Your task to perform on an android device: Open calendar and show me the fourth week of next month Image 0: 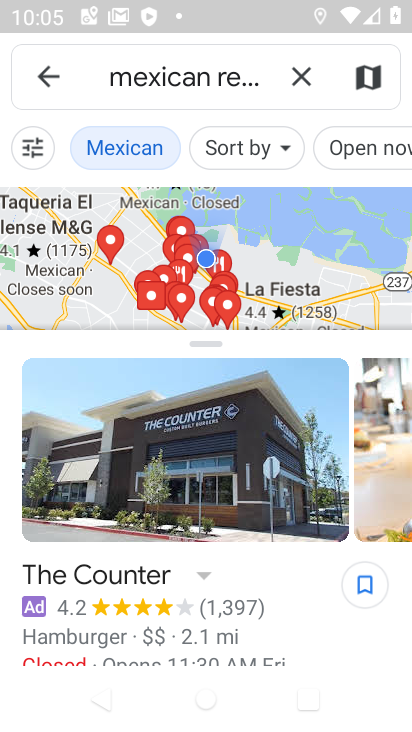
Step 0: task complete